Your task to perform on an android device: check data usage Image 0: 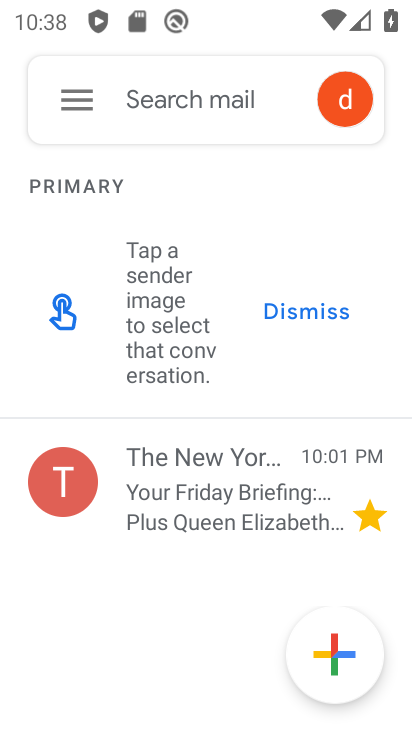
Step 0: press back button
Your task to perform on an android device: check data usage Image 1: 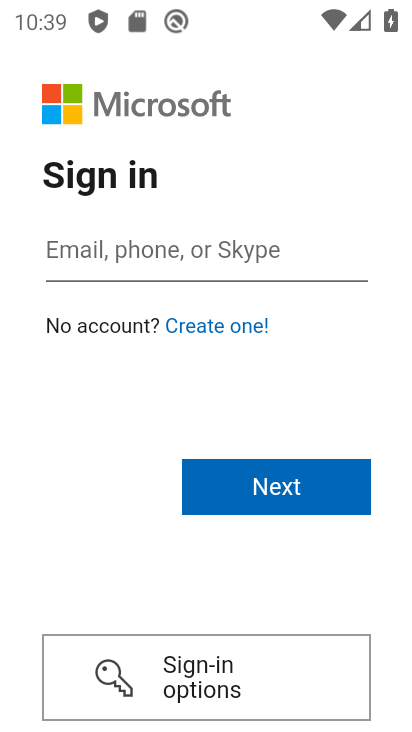
Step 1: press back button
Your task to perform on an android device: check data usage Image 2: 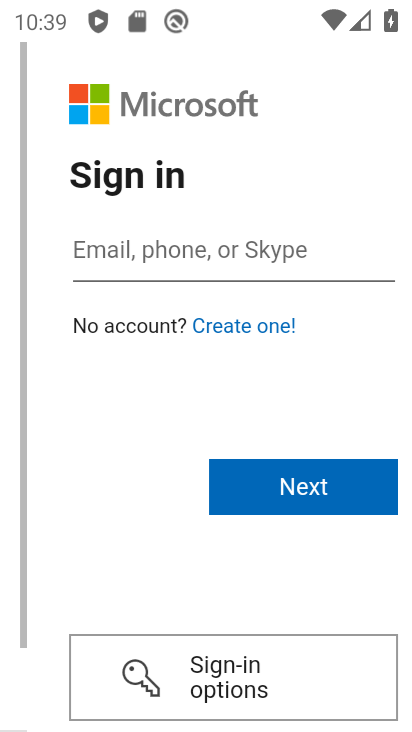
Step 2: press home button
Your task to perform on an android device: check data usage Image 3: 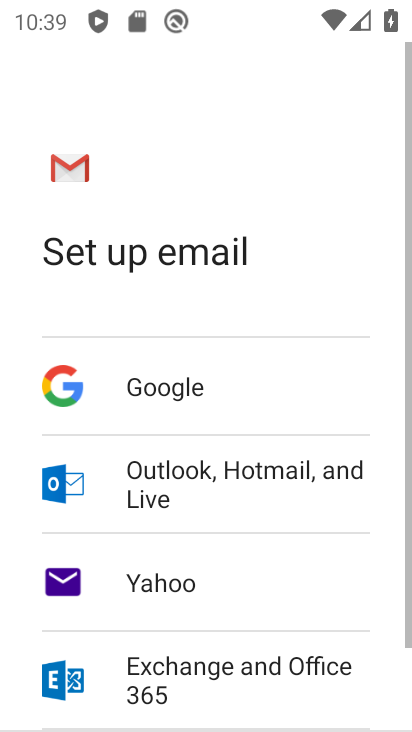
Step 3: press home button
Your task to perform on an android device: check data usage Image 4: 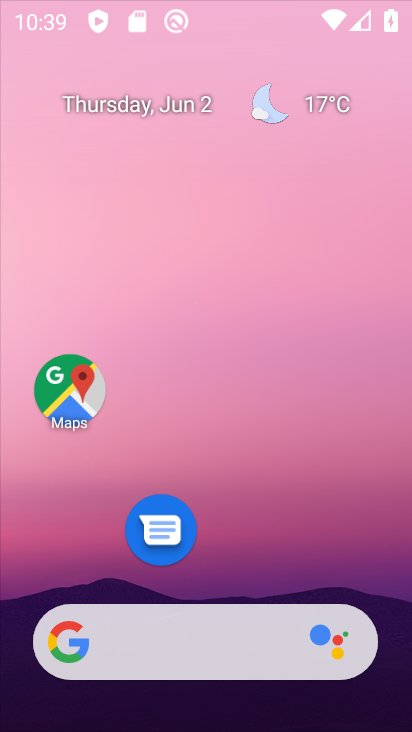
Step 4: press home button
Your task to perform on an android device: check data usage Image 5: 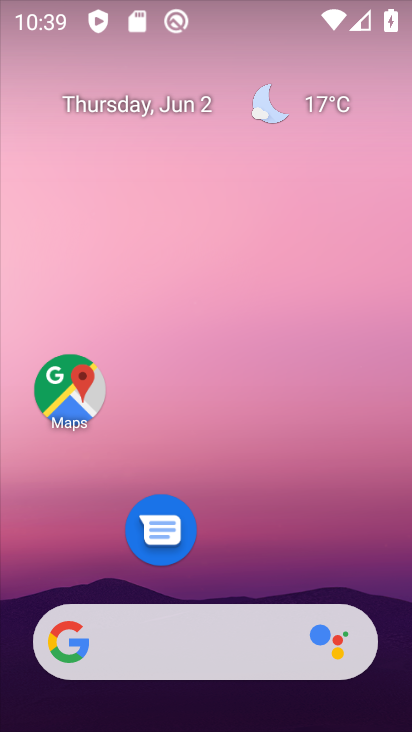
Step 5: press home button
Your task to perform on an android device: check data usage Image 6: 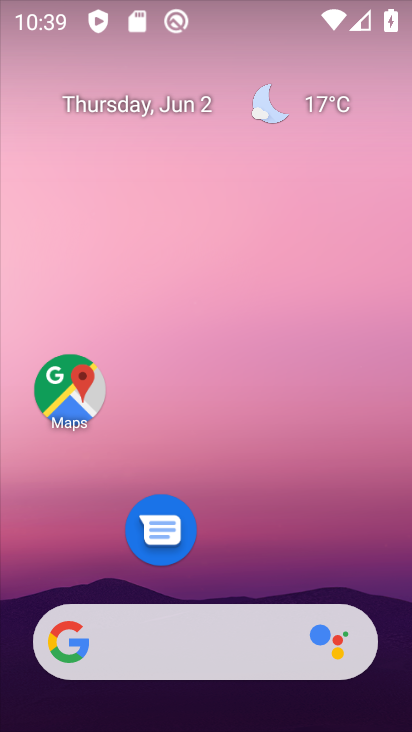
Step 6: drag from (209, 678) to (130, 139)
Your task to perform on an android device: check data usage Image 7: 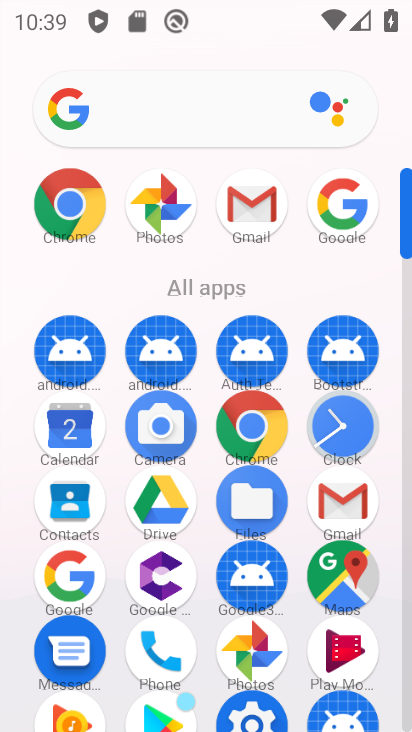
Step 7: drag from (245, 650) to (174, 180)
Your task to perform on an android device: check data usage Image 8: 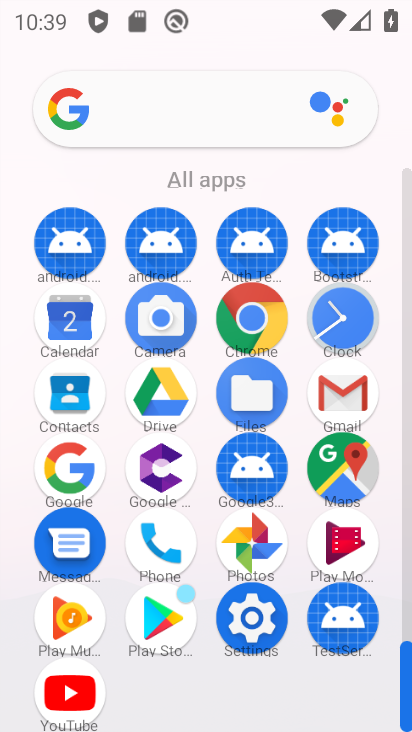
Step 8: click (253, 614)
Your task to perform on an android device: check data usage Image 9: 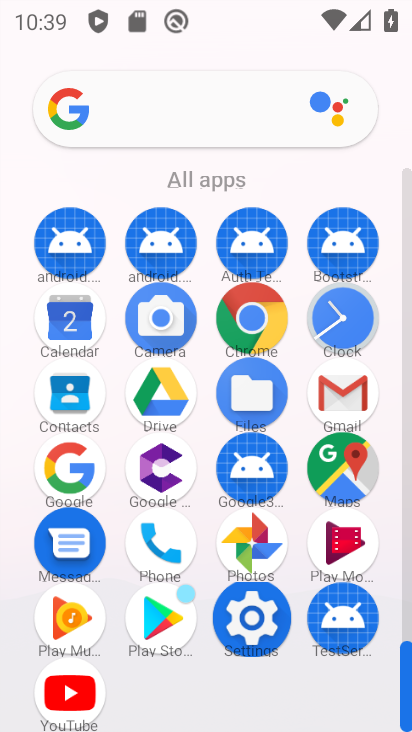
Step 9: click (260, 615)
Your task to perform on an android device: check data usage Image 10: 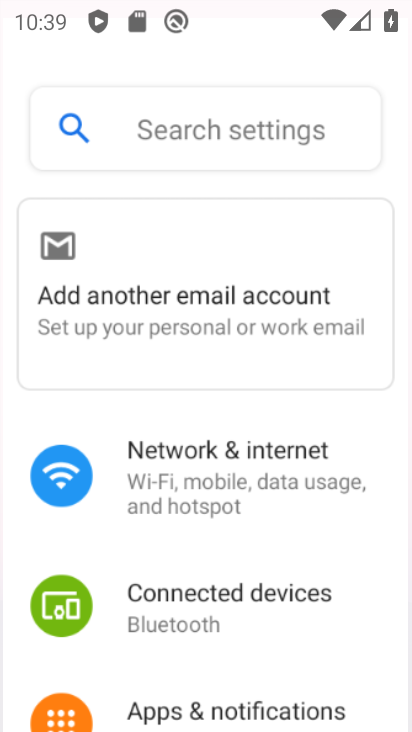
Step 10: click (260, 615)
Your task to perform on an android device: check data usage Image 11: 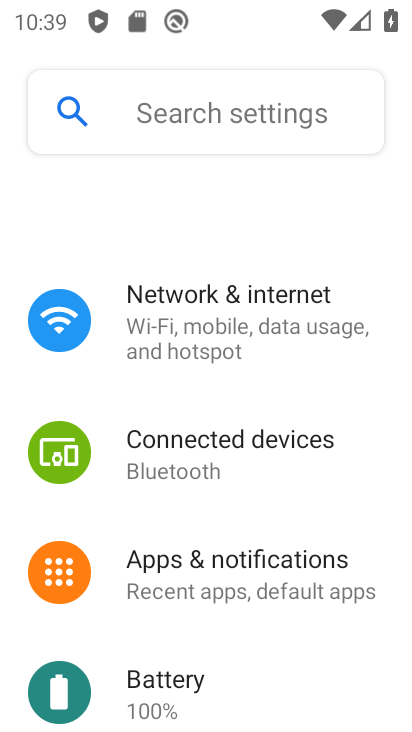
Step 11: click (260, 616)
Your task to perform on an android device: check data usage Image 12: 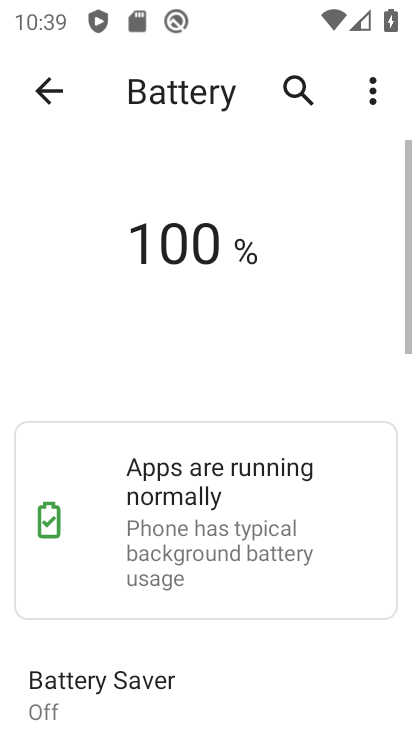
Step 12: drag from (205, 523) to (149, 310)
Your task to perform on an android device: check data usage Image 13: 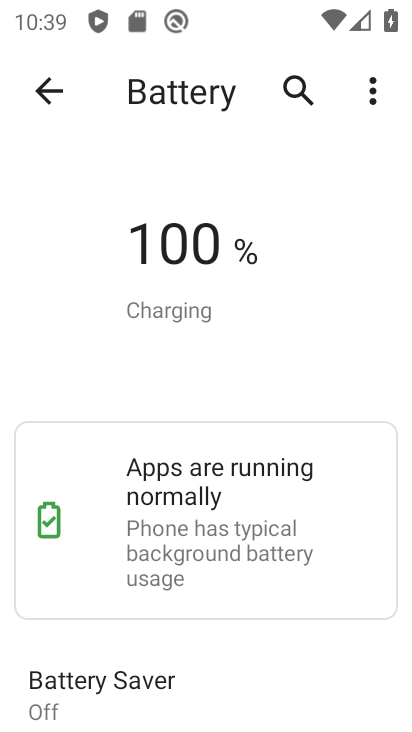
Step 13: click (45, 81)
Your task to perform on an android device: check data usage Image 14: 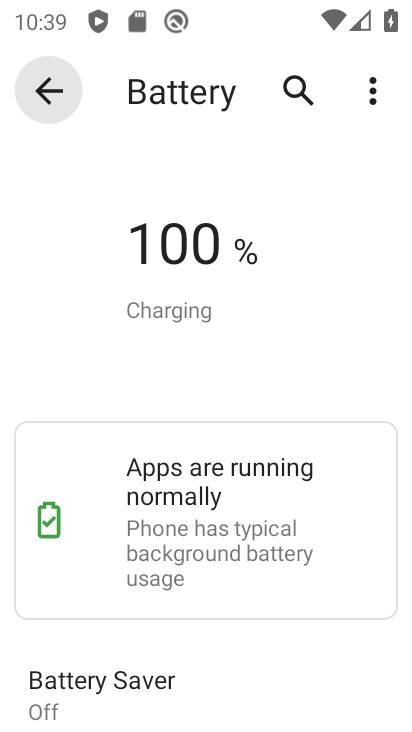
Step 14: click (45, 81)
Your task to perform on an android device: check data usage Image 15: 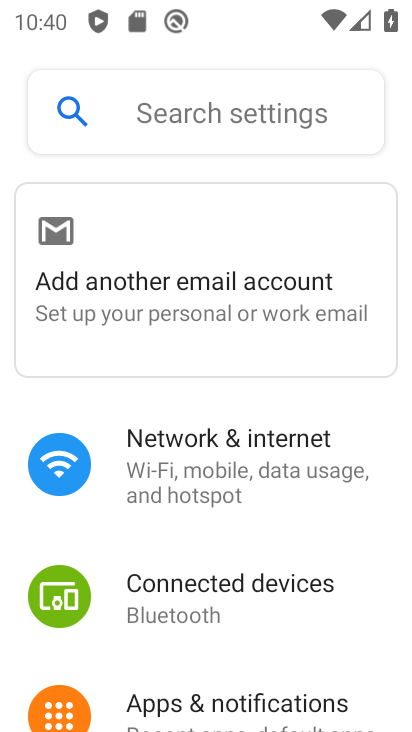
Step 15: drag from (179, 495) to (180, 215)
Your task to perform on an android device: check data usage Image 16: 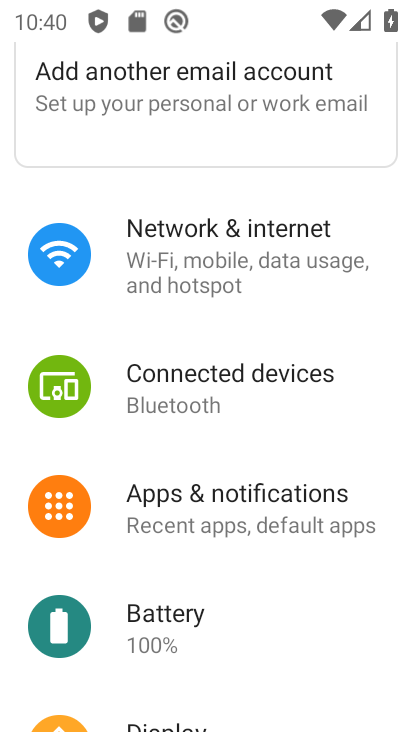
Step 16: drag from (226, 468) to (202, 161)
Your task to perform on an android device: check data usage Image 17: 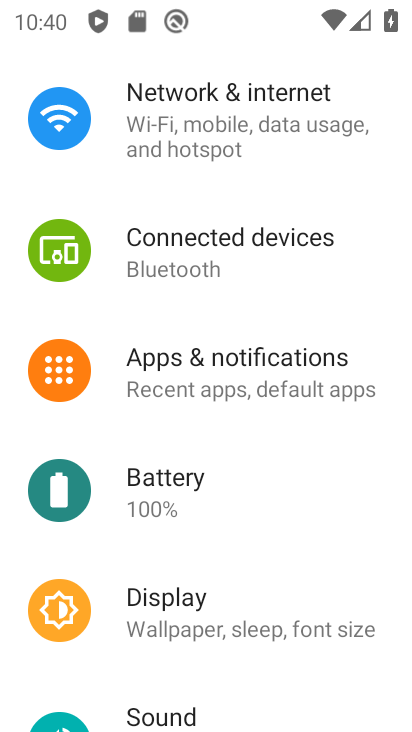
Step 17: drag from (224, 263) to (223, 185)
Your task to perform on an android device: check data usage Image 18: 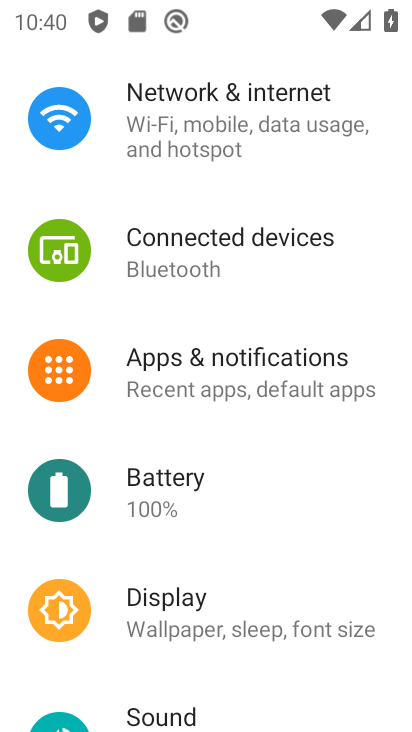
Step 18: drag from (213, 484) to (147, 153)
Your task to perform on an android device: check data usage Image 19: 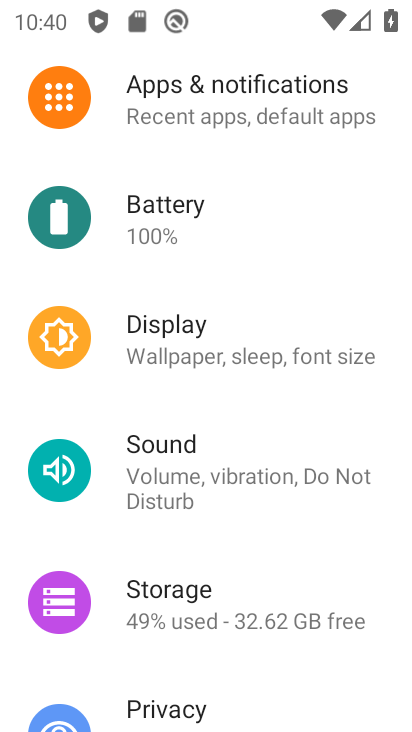
Step 19: drag from (204, 441) to (201, 146)
Your task to perform on an android device: check data usage Image 20: 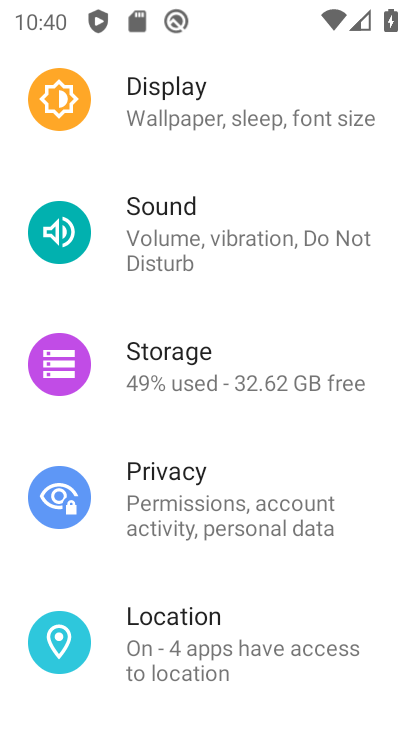
Step 20: drag from (187, 222) to (236, 542)
Your task to perform on an android device: check data usage Image 21: 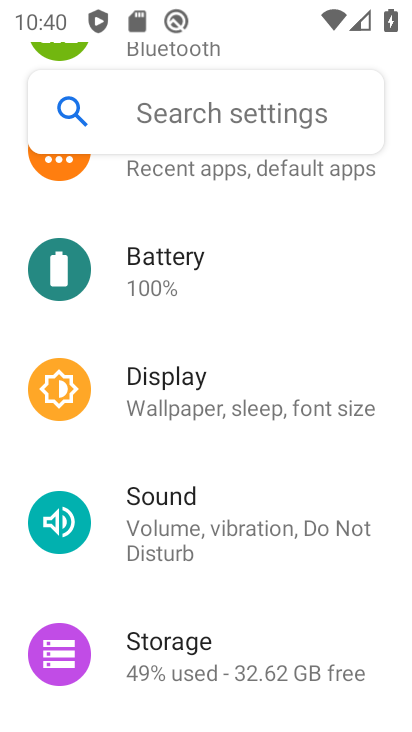
Step 21: drag from (221, 178) to (262, 542)
Your task to perform on an android device: check data usage Image 22: 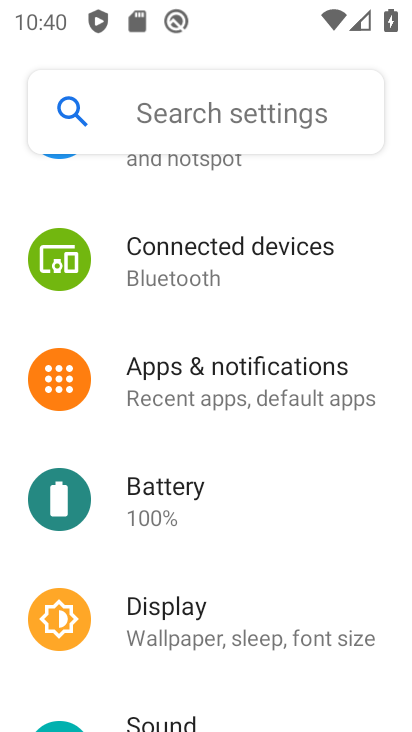
Step 22: drag from (205, 273) to (231, 626)
Your task to perform on an android device: check data usage Image 23: 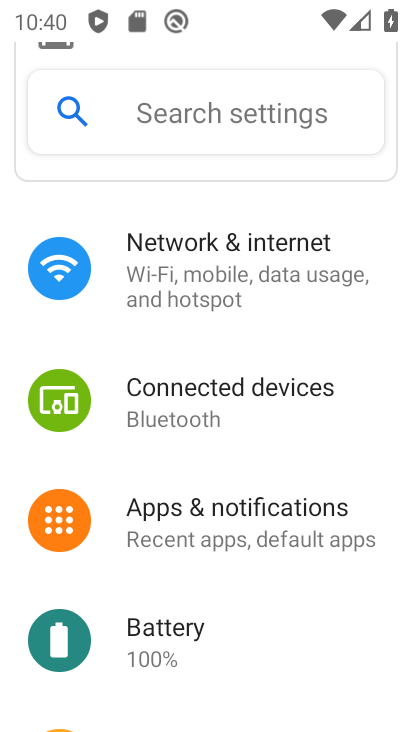
Step 23: drag from (172, 187) to (265, 560)
Your task to perform on an android device: check data usage Image 24: 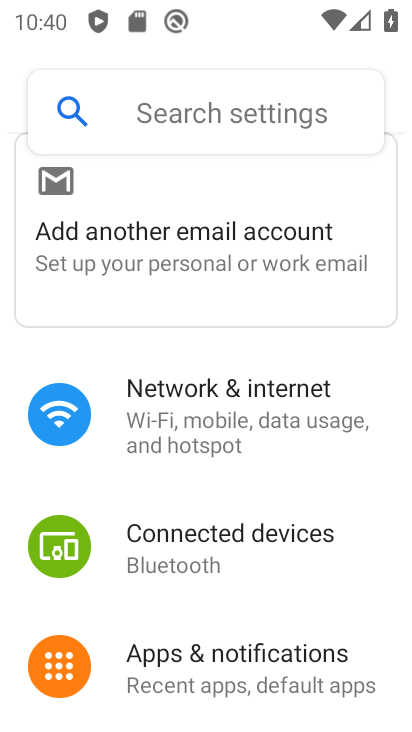
Step 24: drag from (259, 308) to (283, 614)
Your task to perform on an android device: check data usage Image 25: 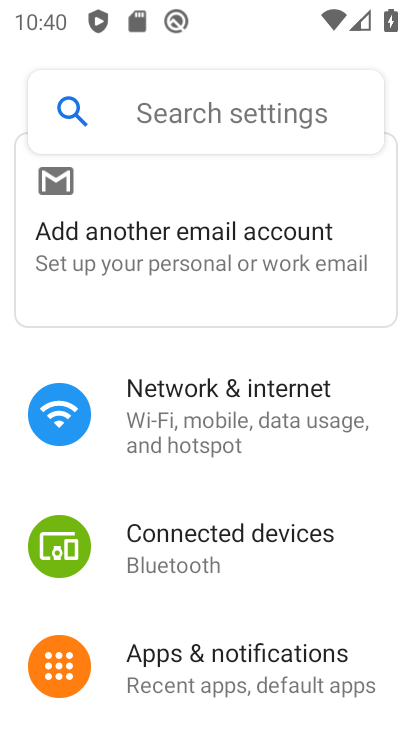
Step 25: click (213, 410)
Your task to perform on an android device: check data usage Image 26: 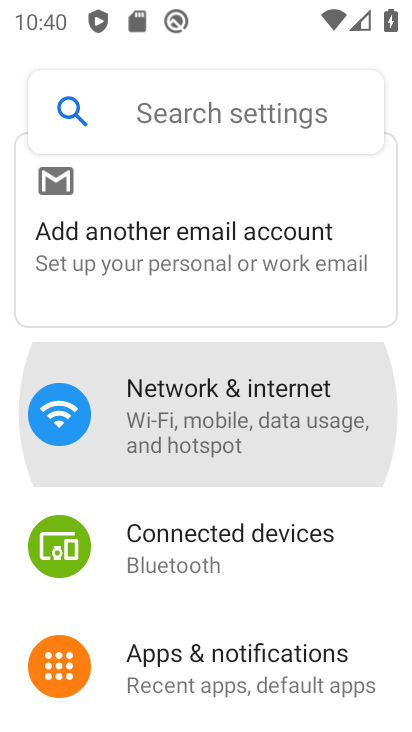
Step 26: click (214, 409)
Your task to perform on an android device: check data usage Image 27: 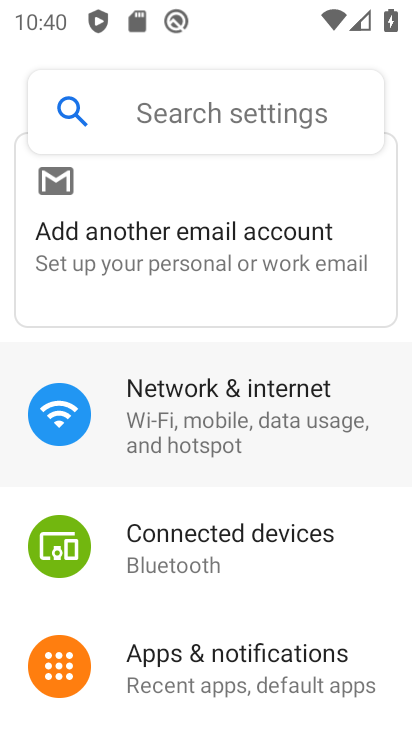
Step 27: click (217, 406)
Your task to perform on an android device: check data usage Image 28: 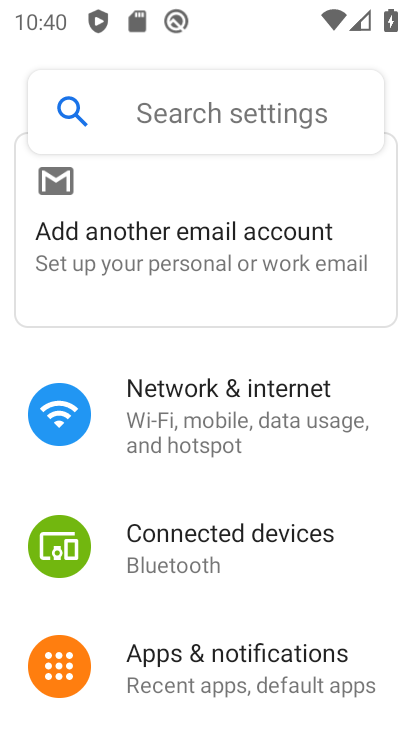
Step 28: click (214, 404)
Your task to perform on an android device: check data usage Image 29: 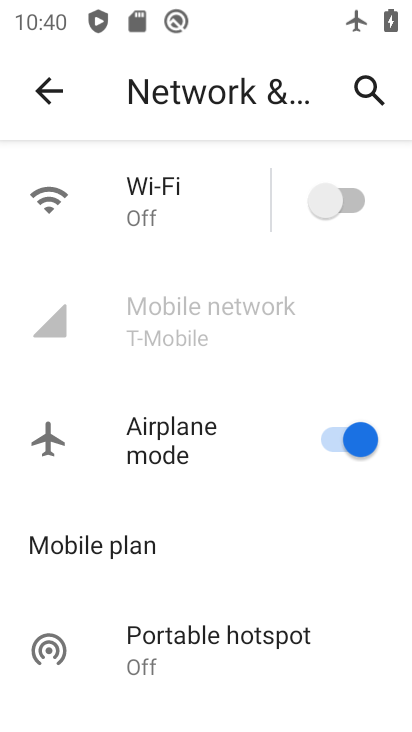
Step 29: click (324, 201)
Your task to perform on an android device: check data usage Image 30: 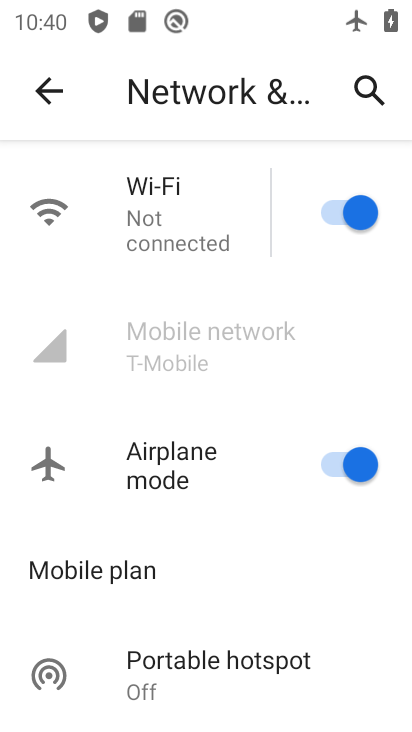
Step 30: click (344, 464)
Your task to perform on an android device: check data usage Image 31: 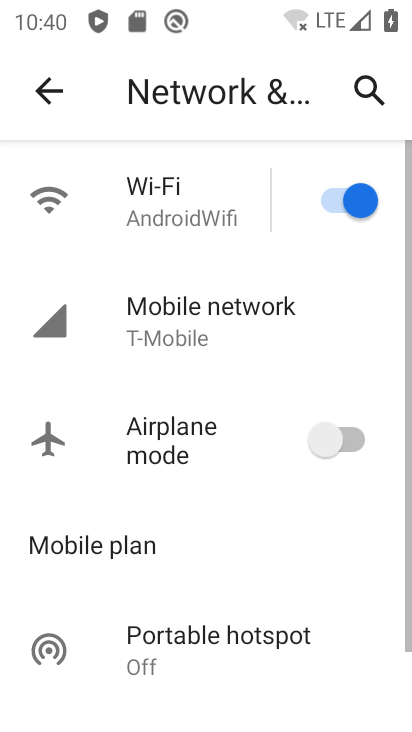
Step 31: click (130, 333)
Your task to perform on an android device: check data usage Image 32: 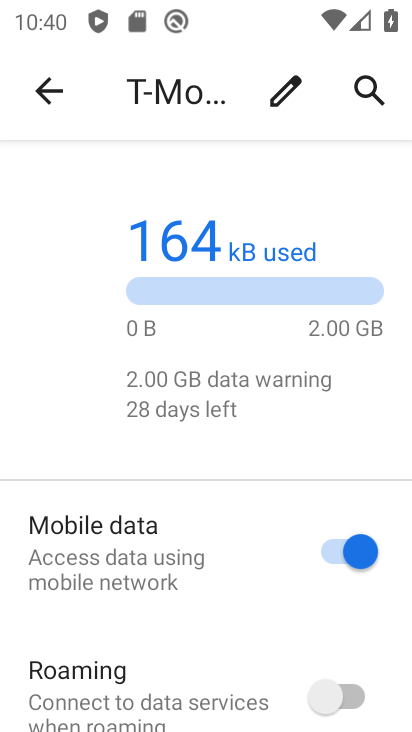
Step 32: task complete